Your task to perform on an android device: delete a single message in the gmail app Image 0: 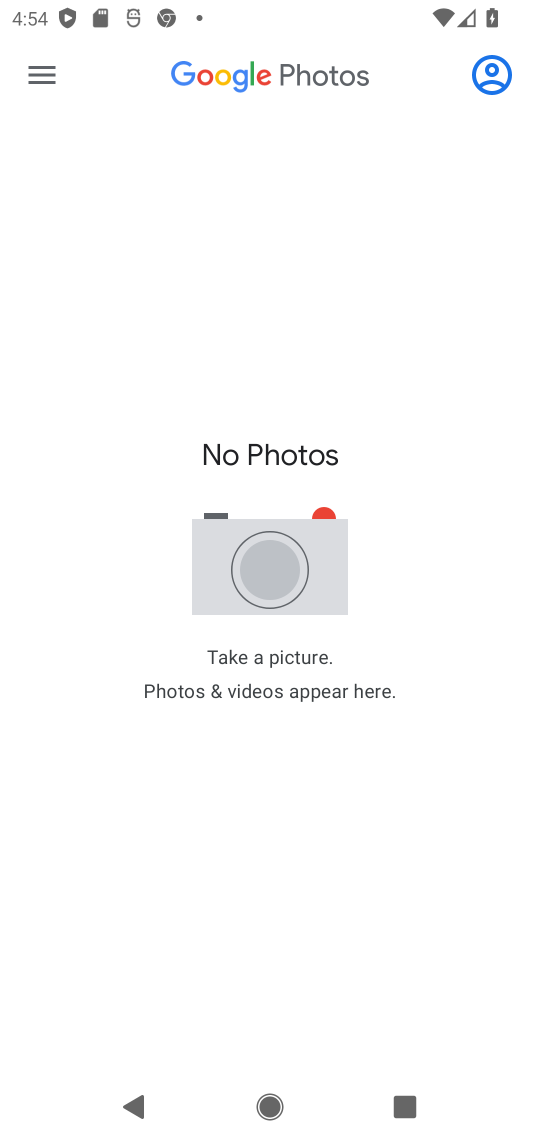
Step 0: press home button
Your task to perform on an android device: delete a single message in the gmail app Image 1: 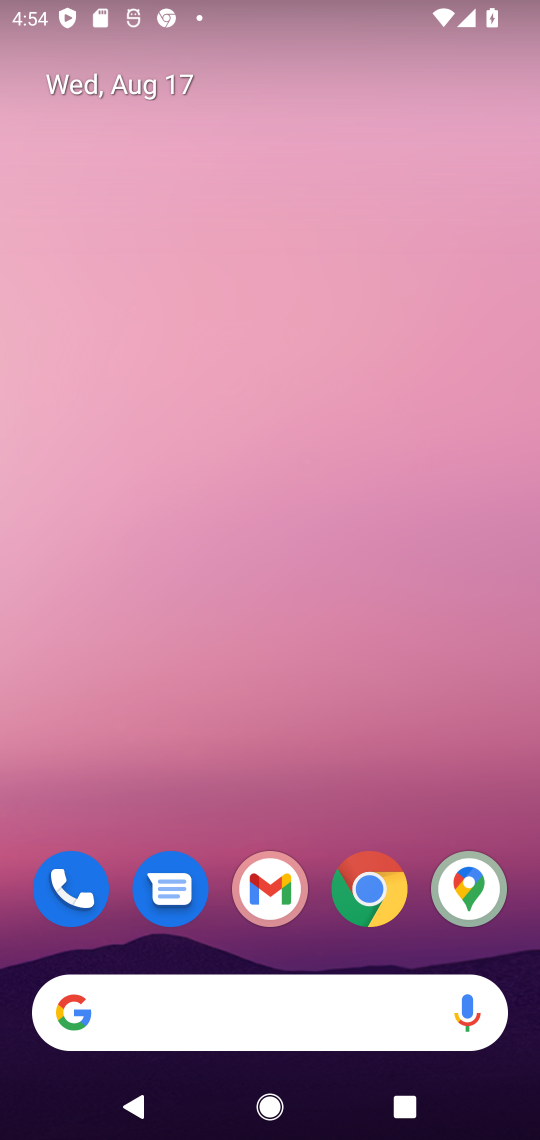
Step 1: click (273, 883)
Your task to perform on an android device: delete a single message in the gmail app Image 2: 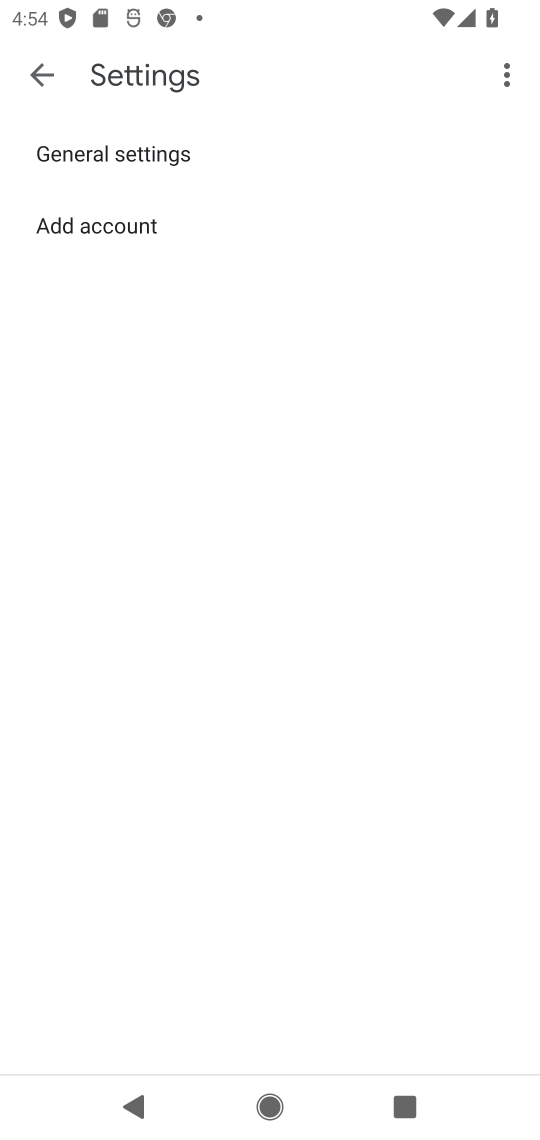
Step 2: click (268, 220)
Your task to perform on an android device: delete a single message in the gmail app Image 3: 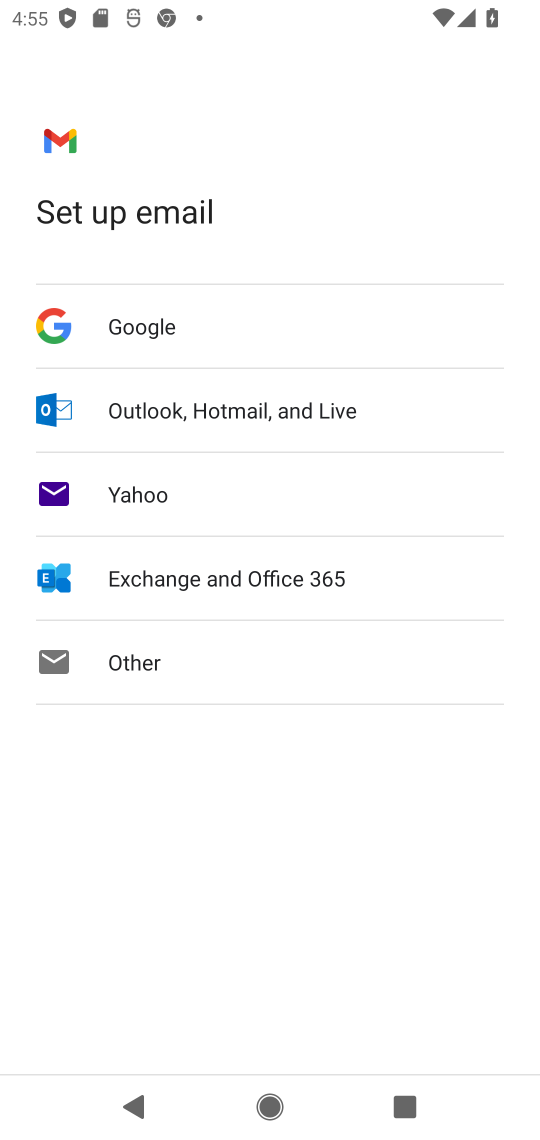
Step 3: press back button
Your task to perform on an android device: delete a single message in the gmail app Image 4: 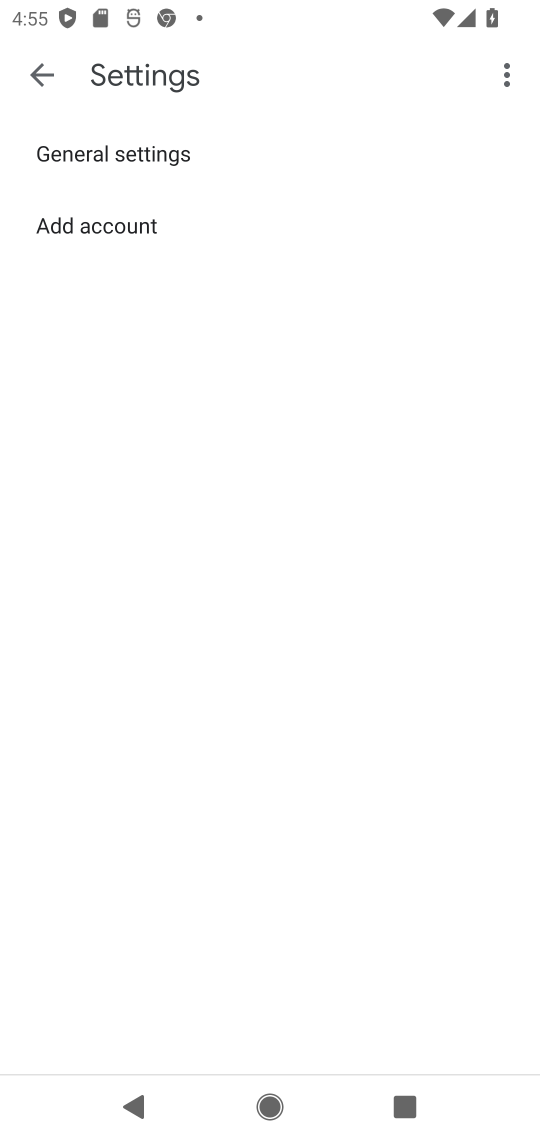
Step 4: click (34, 66)
Your task to perform on an android device: delete a single message in the gmail app Image 5: 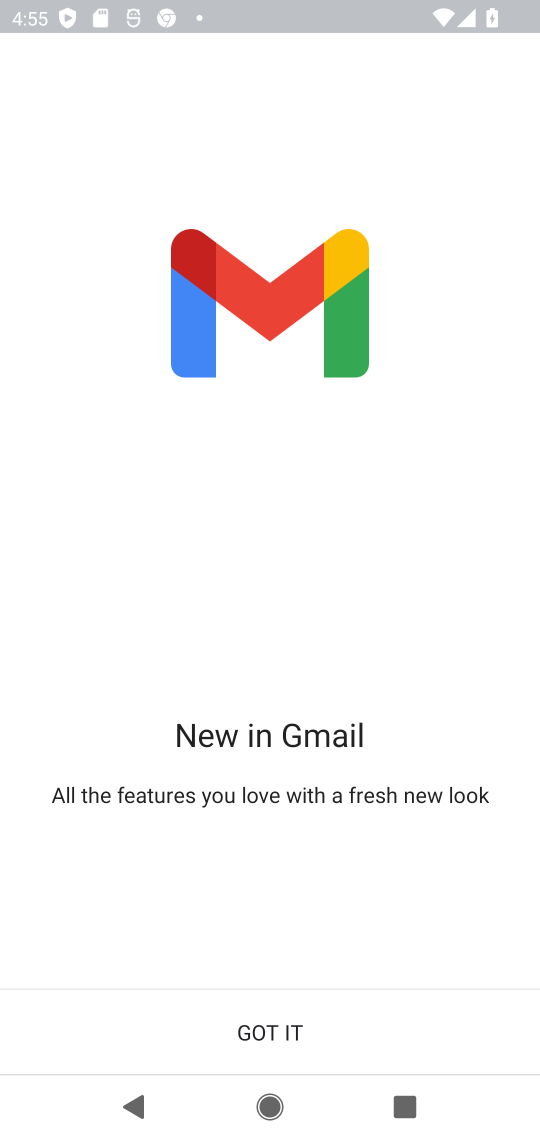
Step 5: click (270, 1033)
Your task to perform on an android device: delete a single message in the gmail app Image 6: 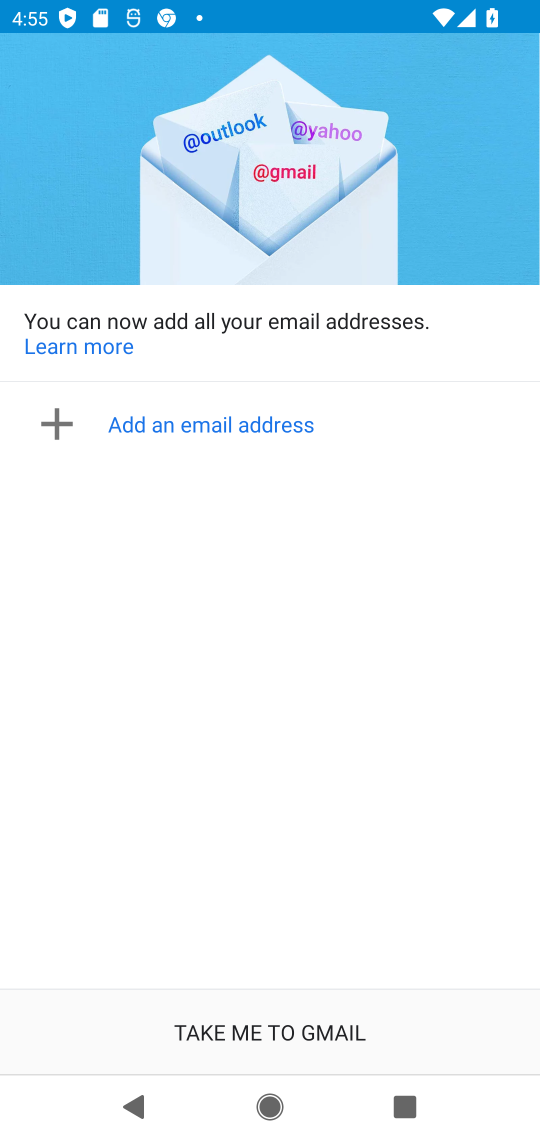
Step 6: task complete